Your task to perform on an android device: Open network settings Image 0: 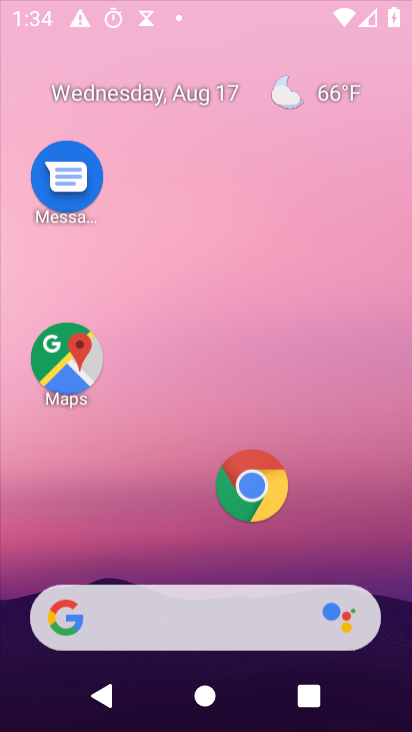
Step 0: press home button
Your task to perform on an android device: Open network settings Image 1: 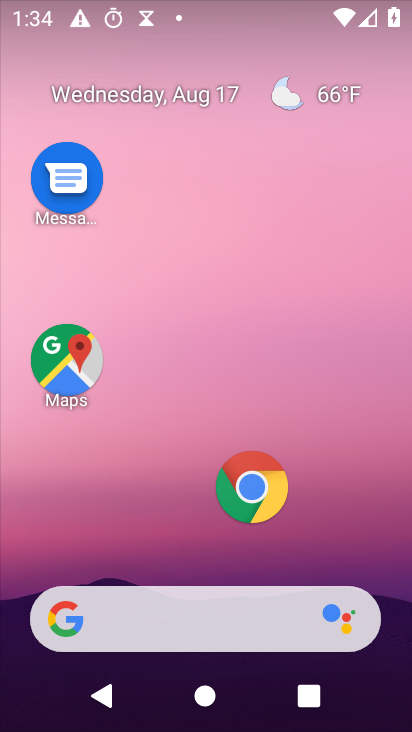
Step 1: drag from (205, 566) to (161, 4)
Your task to perform on an android device: Open network settings Image 2: 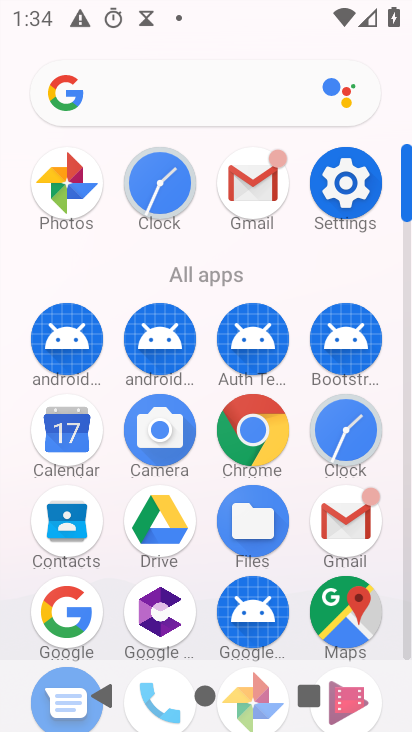
Step 2: click (342, 186)
Your task to perform on an android device: Open network settings Image 3: 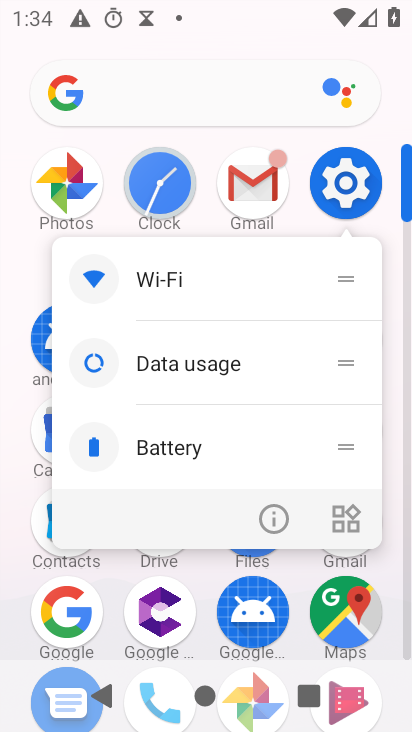
Step 3: click (342, 186)
Your task to perform on an android device: Open network settings Image 4: 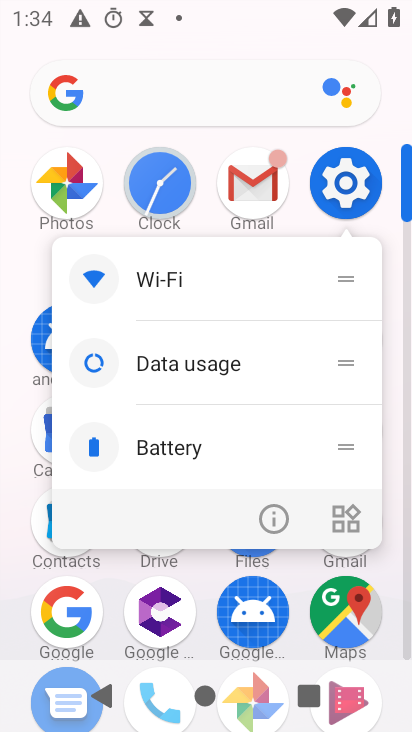
Step 4: click (338, 188)
Your task to perform on an android device: Open network settings Image 5: 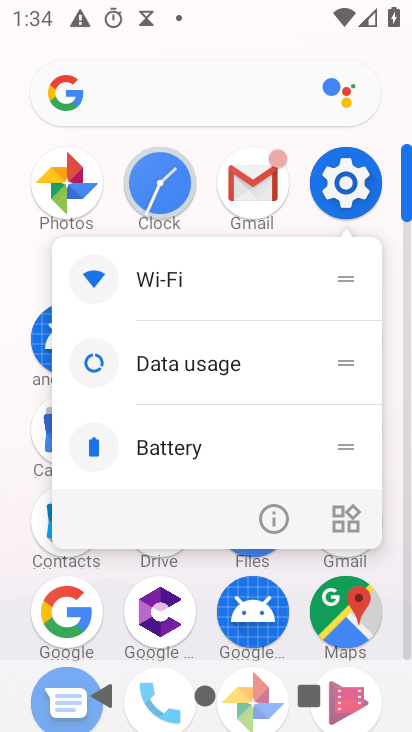
Step 5: click (335, 196)
Your task to perform on an android device: Open network settings Image 6: 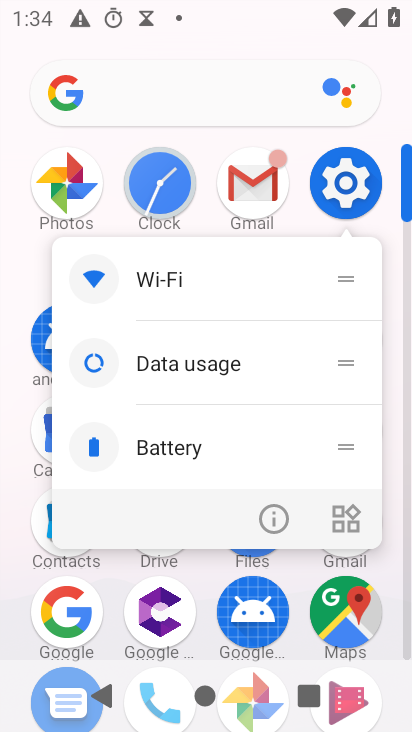
Step 6: click (331, 198)
Your task to perform on an android device: Open network settings Image 7: 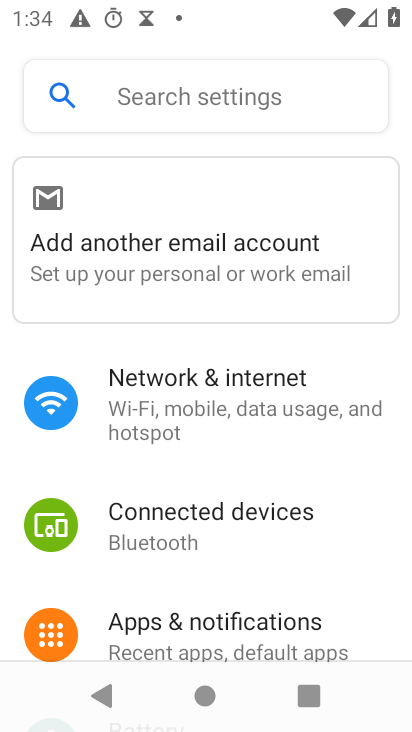
Step 7: click (183, 394)
Your task to perform on an android device: Open network settings Image 8: 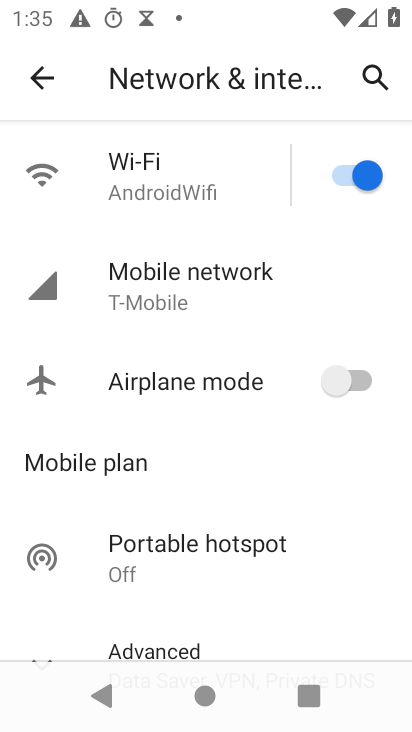
Step 8: task complete